Your task to perform on an android device: Set the phone to "Do not disturb". Image 0: 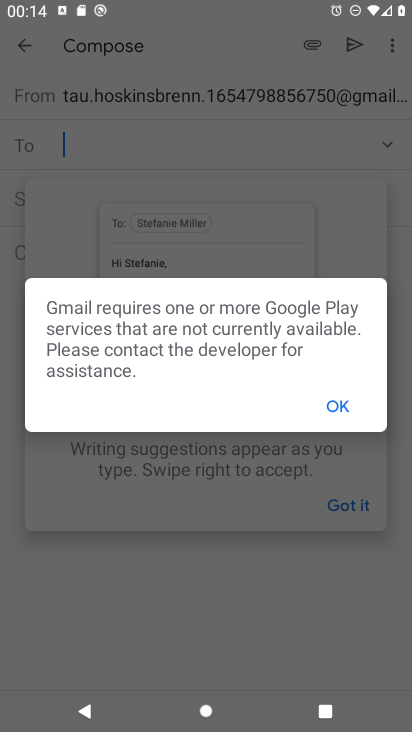
Step 0: press home button
Your task to perform on an android device: Set the phone to "Do not disturb". Image 1: 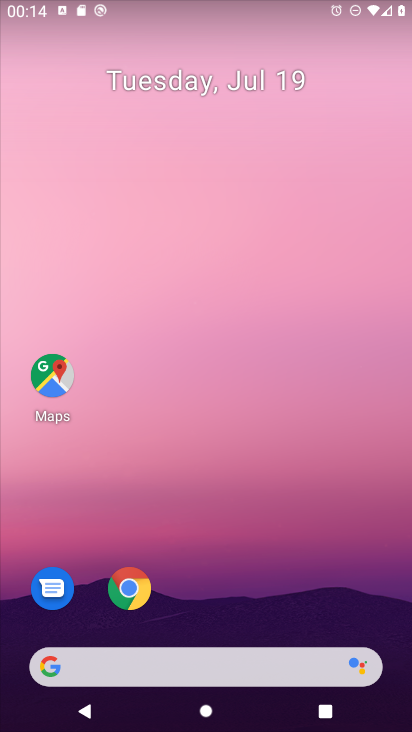
Step 1: drag from (387, 619) to (336, 82)
Your task to perform on an android device: Set the phone to "Do not disturb". Image 2: 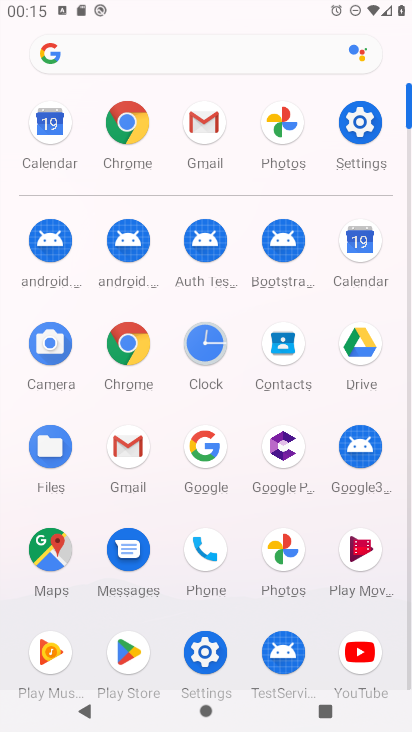
Step 2: click (205, 649)
Your task to perform on an android device: Set the phone to "Do not disturb". Image 3: 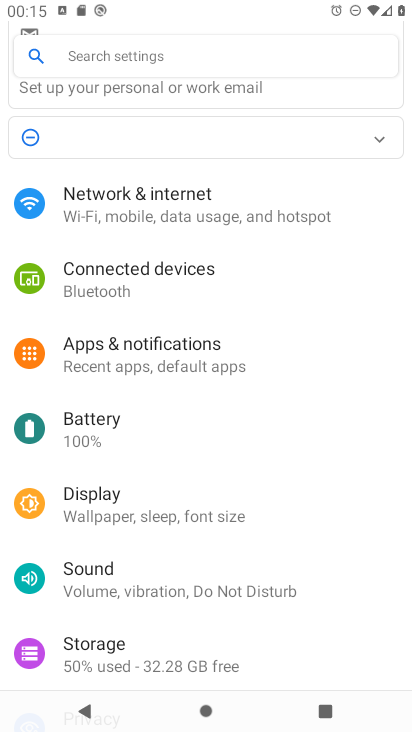
Step 3: click (144, 593)
Your task to perform on an android device: Set the phone to "Do not disturb". Image 4: 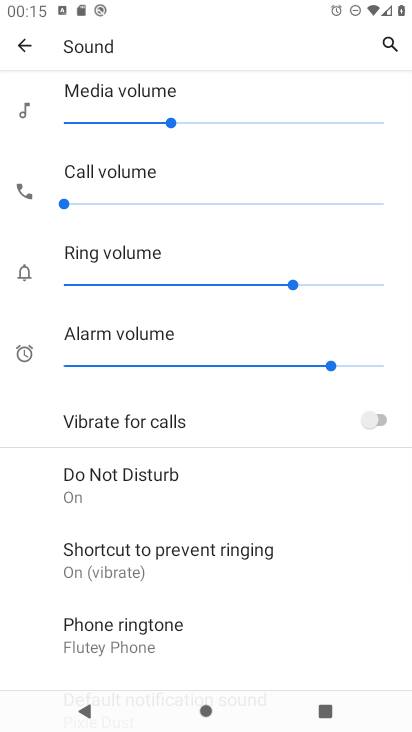
Step 4: click (118, 489)
Your task to perform on an android device: Set the phone to "Do not disturb". Image 5: 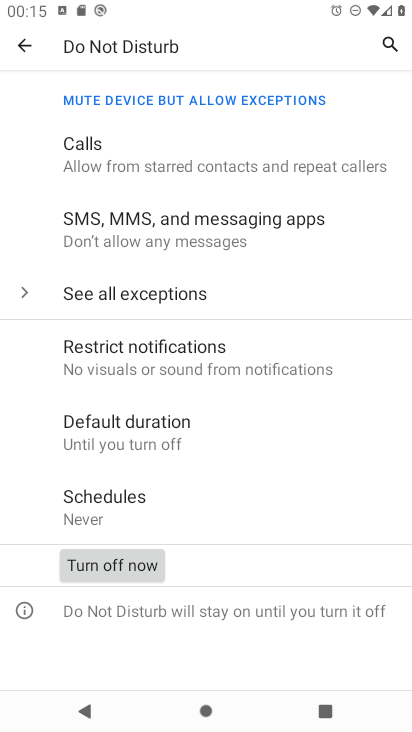
Step 5: task complete